Your task to perform on an android device: Go to Amazon Image 0: 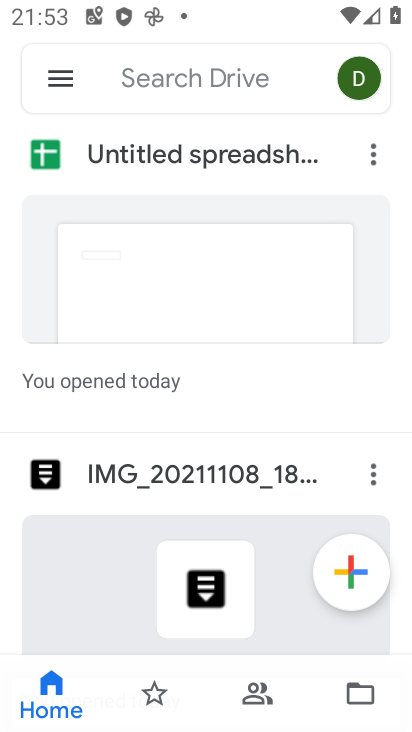
Step 0: press home button
Your task to perform on an android device: Go to Amazon Image 1: 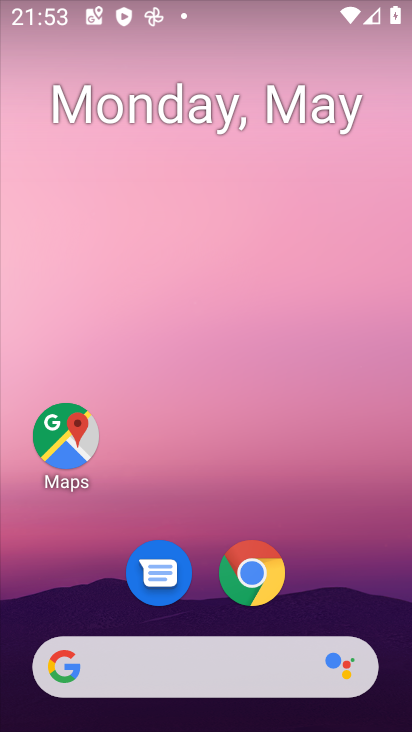
Step 1: click (257, 573)
Your task to perform on an android device: Go to Amazon Image 2: 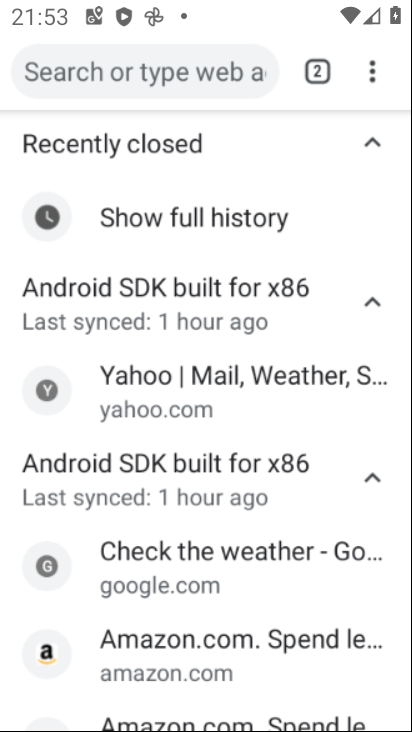
Step 2: click (218, 72)
Your task to perform on an android device: Go to Amazon Image 3: 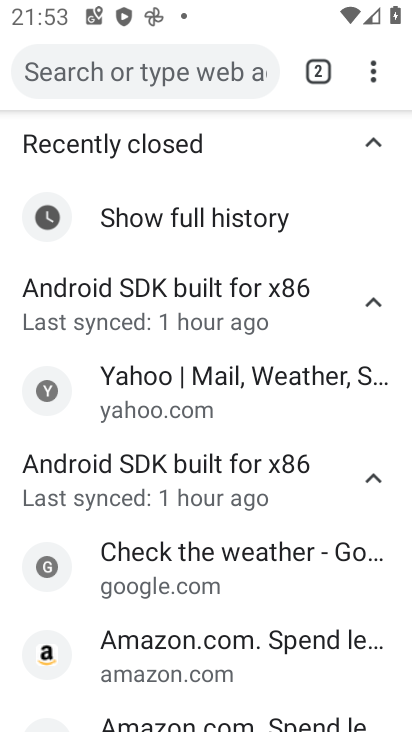
Step 3: click (143, 66)
Your task to perform on an android device: Go to Amazon Image 4: 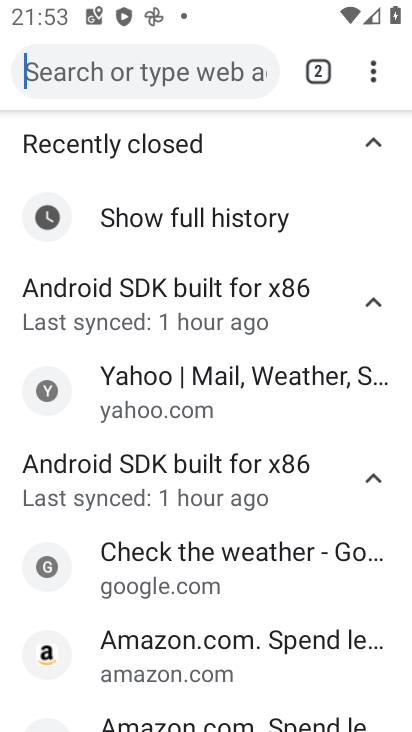
Step 4: click (143, 66)
Your task to perform on an android device: Go to Amazon Image 5: 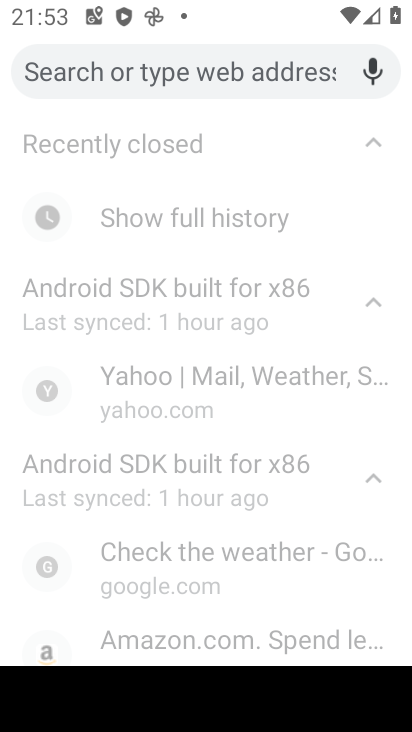
Step 5: type "amazon"
Your task to perform on an android device: Go to Amazon Image 6: 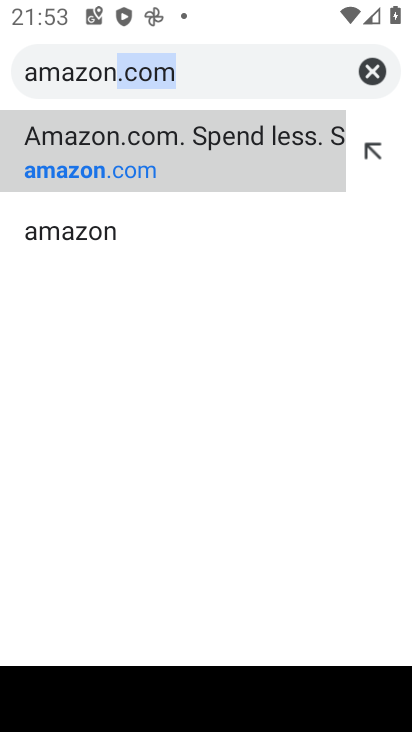
Step 6: click (172, 178)
Your task to perform on an android device: Go to Amazon Image 7: 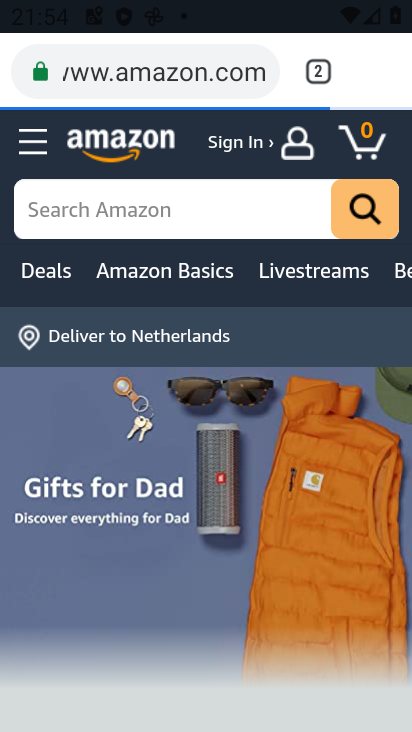
Step 7: task complete